Your task to perform on an android device: open chrome privacy settings Image 0: 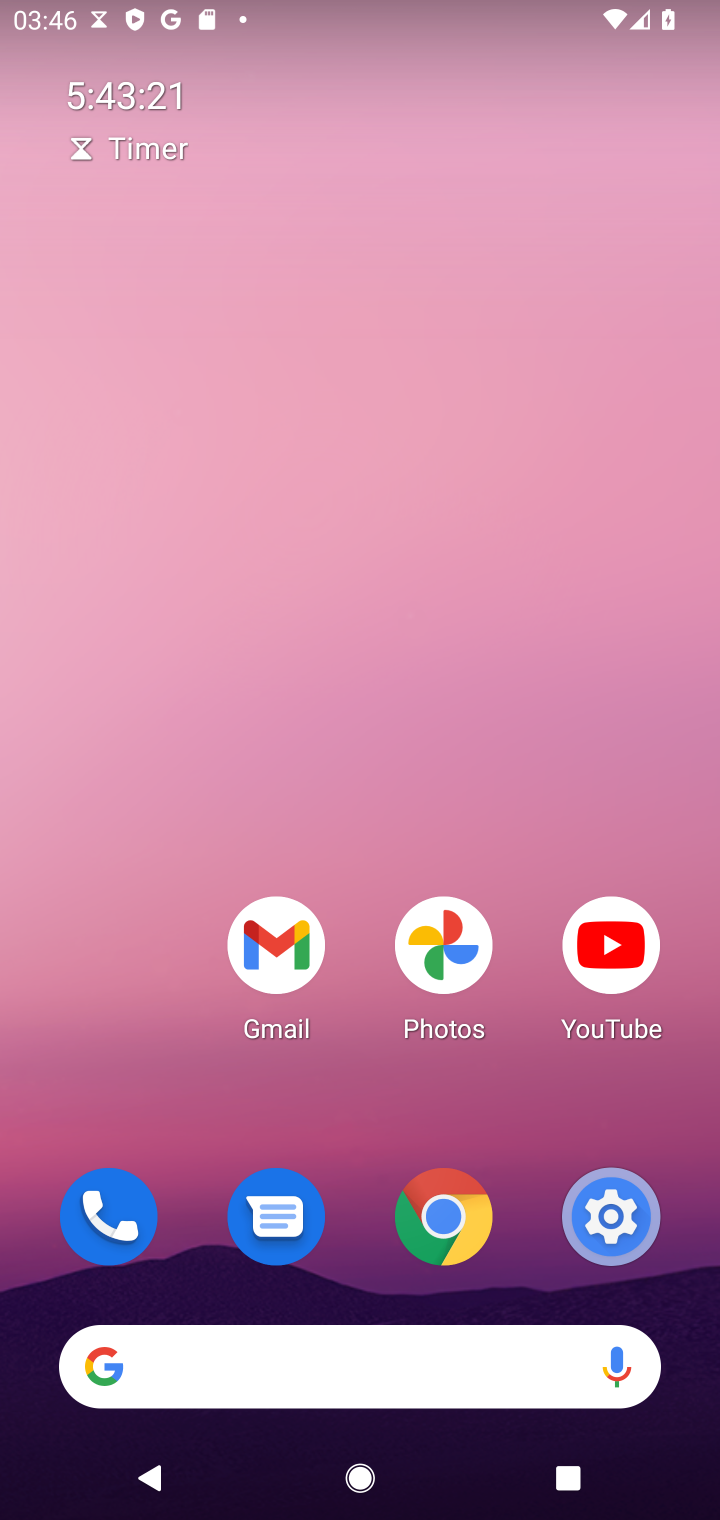
Step 0: click (458, 1213)
Your task to perform on an android device: open chrome privacy settings Image 1: 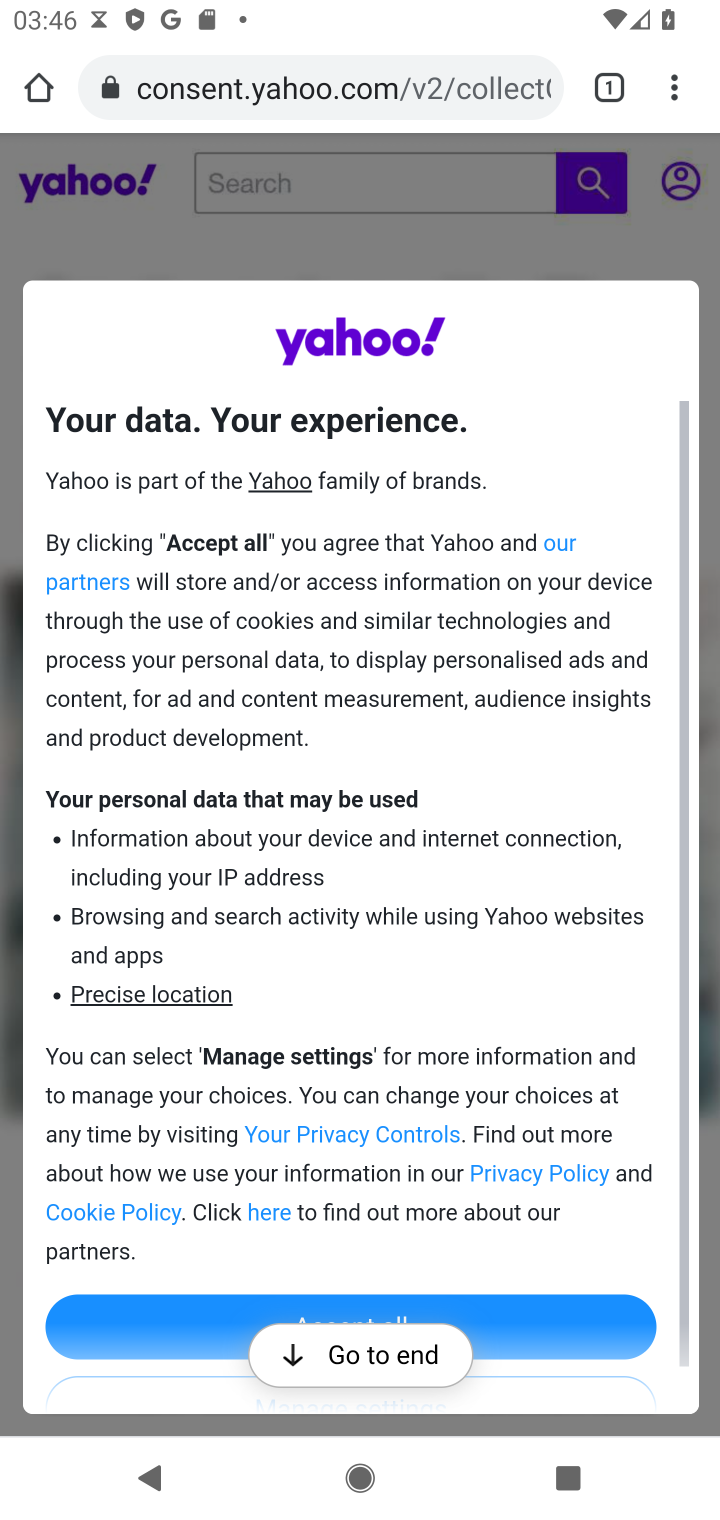
Step 1: click (678, 92)
Your task to perform on an android device: open chrome privacy settings Image 2: 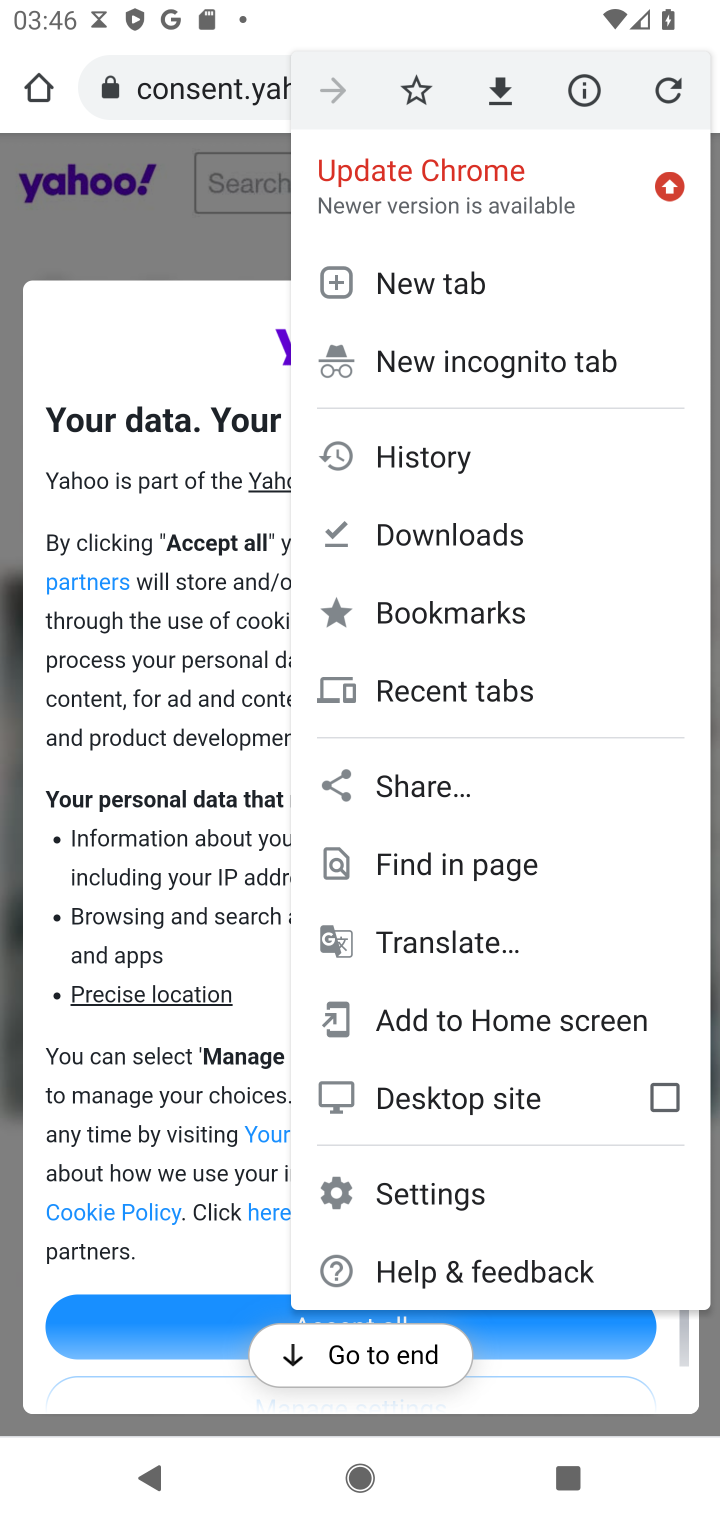
Step 2: click (450, 1188)
Your task to perform on an android device: open chrome privacy settings Image 3: 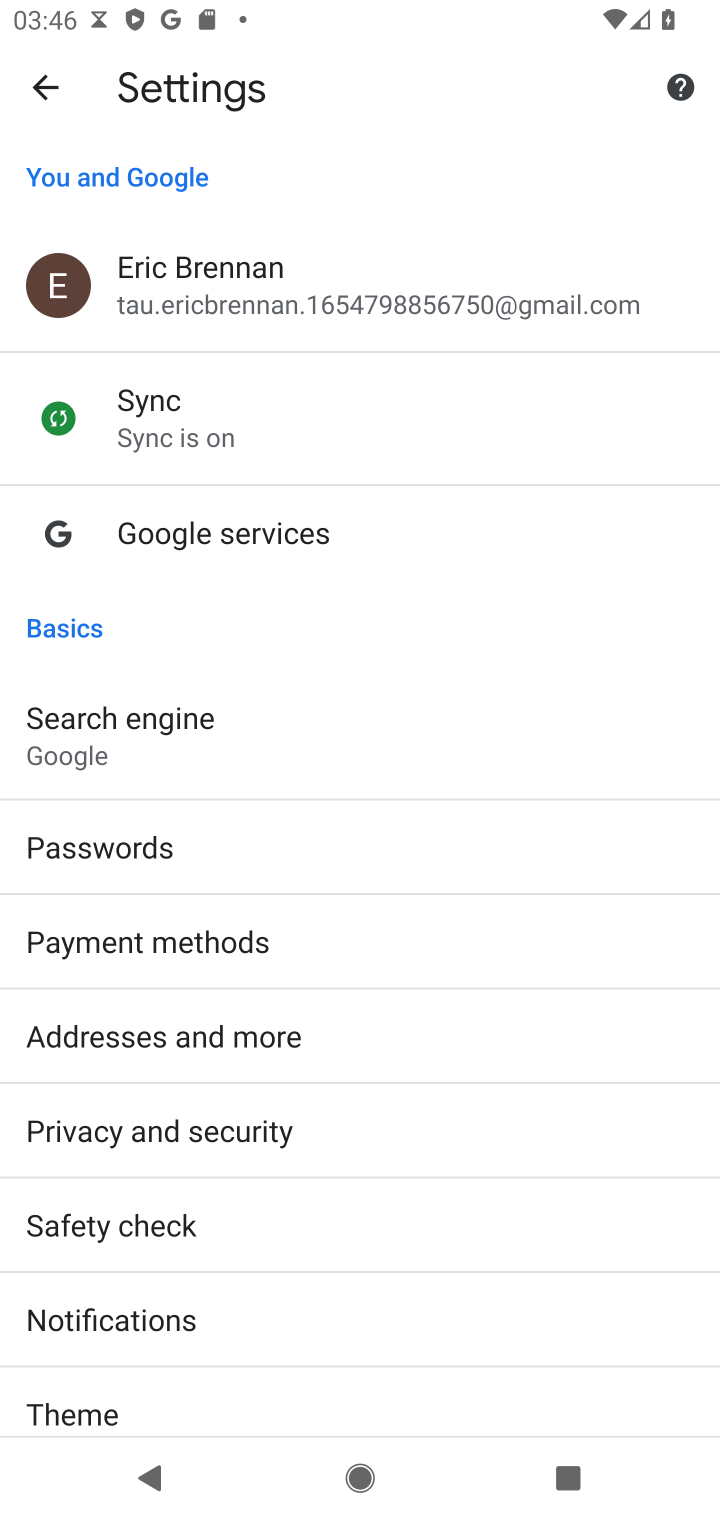
Step 3: drag from (338, 1209) to (302, 867)
Your task to perform on an android device: open chrome privacy settings Image 4: 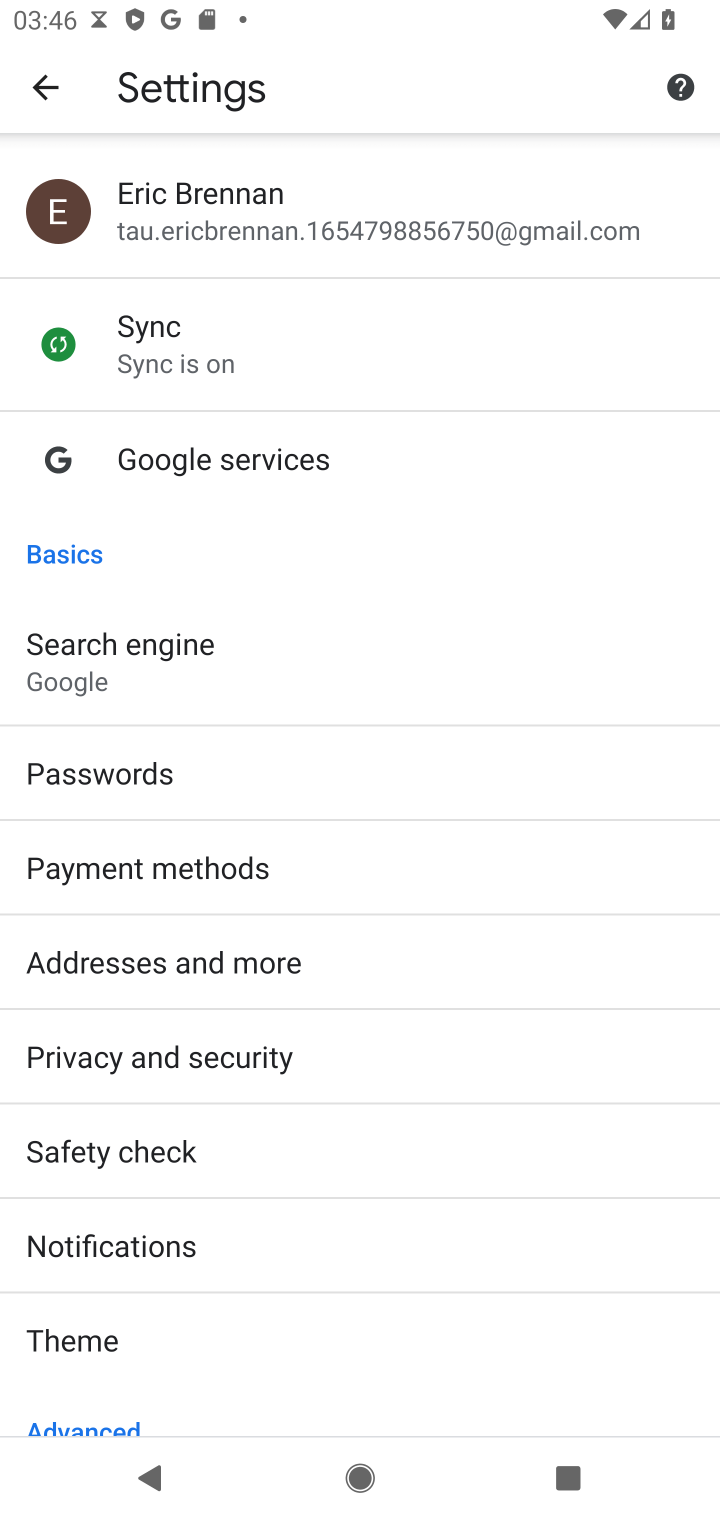
Step 4: drag from (309, 1409) to (317, 826)
Your task to perform on an android device: open chrome privacy settings Image 5: 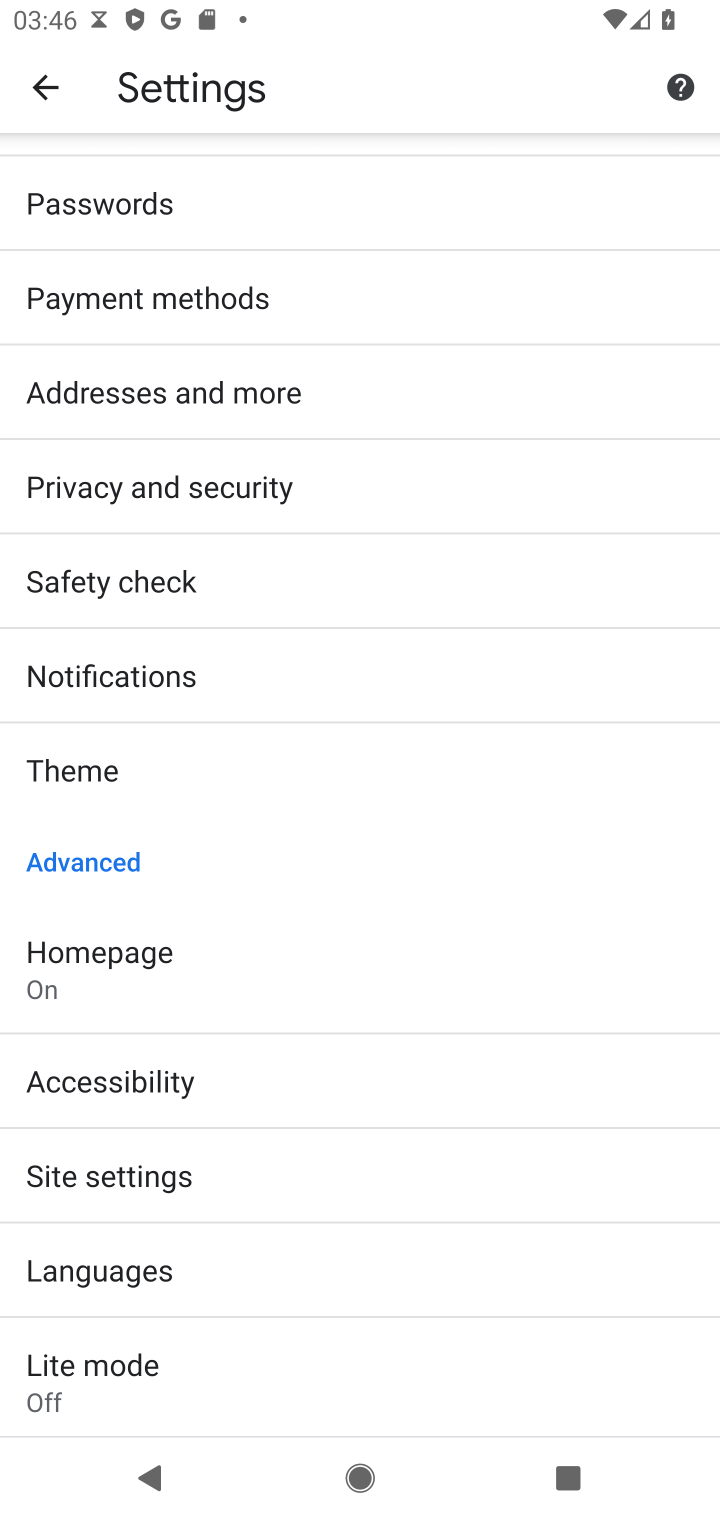
Step 5: click (201, 504)
Your task to perform on an android device: open chrome privacy settings Image 6: 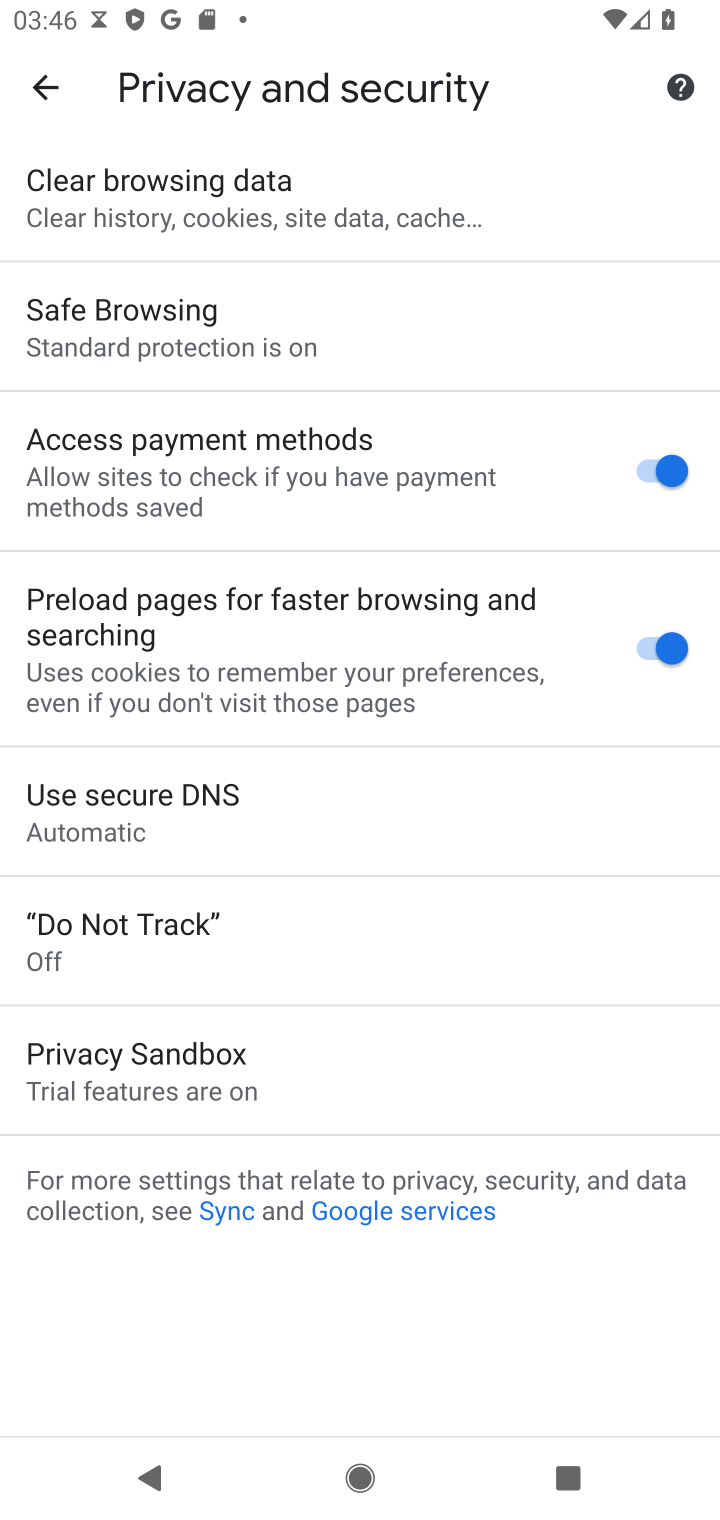
Step 6: task complete